Your task to perform on an android device: Open Youtube and go to the subscriptions tab Image 0: 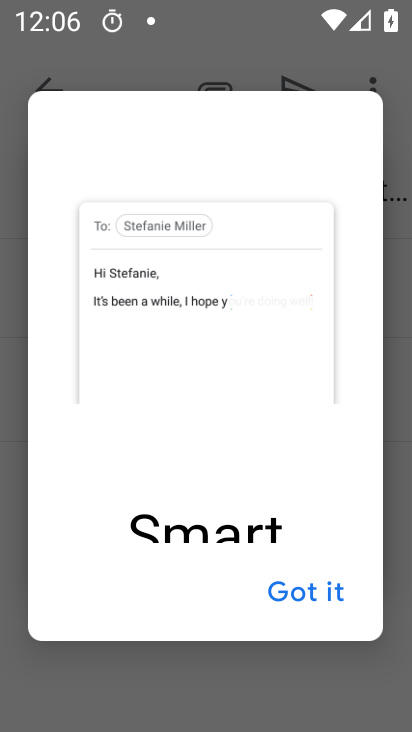
Step 0: drag from (358, 557) to (354, 263)
Your task to perform on an android device: Open Youtube and go to the subscriptions tab Image 1: 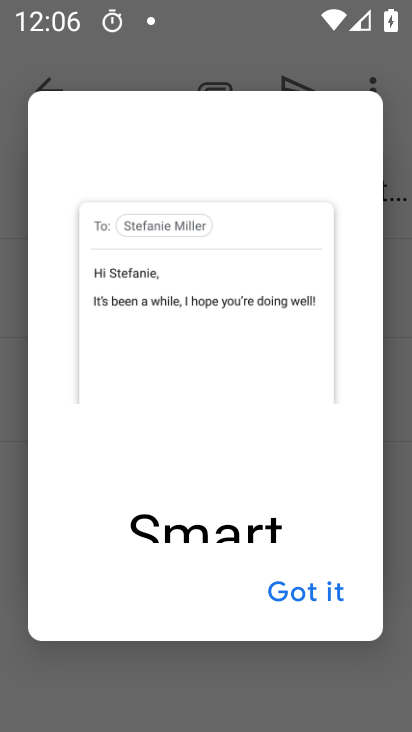
Step 1: press home button
Your task to perform on an android device: Open Youtube and go to the subscriptions tab Image 2: 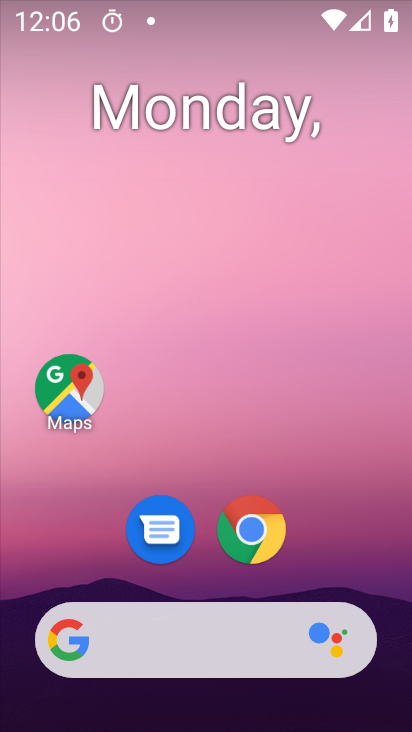
Step 2: drag from (387, 494) to (387, 117)
Your task to perform on an android device: Open Youtube and go to the subscriptions tab Image 3: 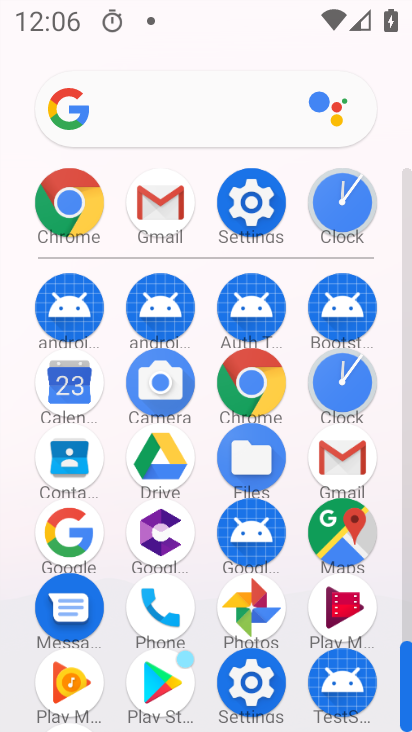
Step 3: drag from (383, 634) to (386, 434)
Your task to perform on an android device: Open Youtube and go to the subscriptions tab Image 4: 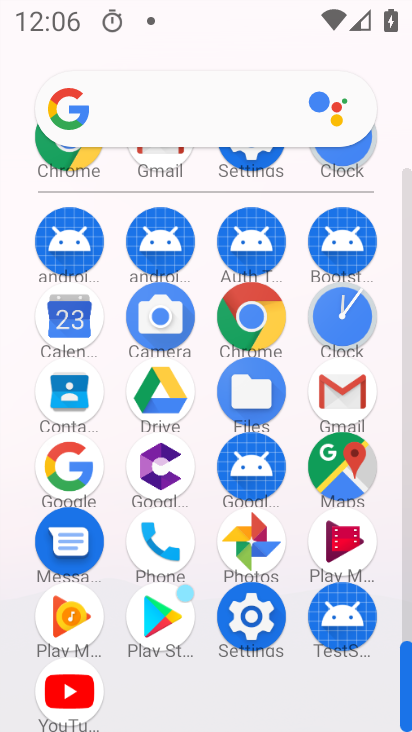
Step 4: click (69, 686)
Your task to perform on an android device: Open Youtube and go to the subscriptions tab Image 5: 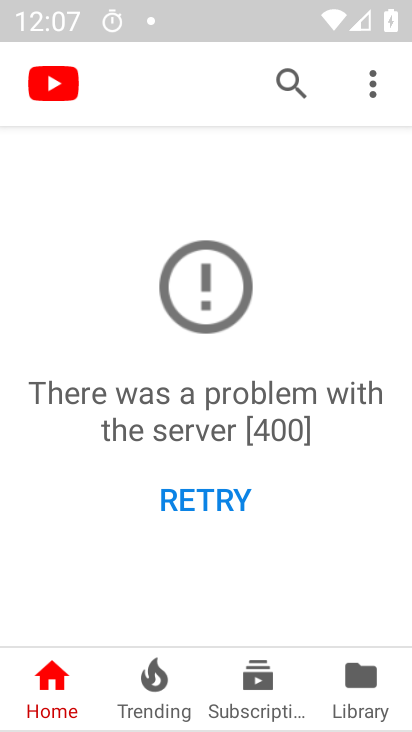
Step 5: click (259, 687)
Your task to perform on an android device: Open Youtube and go to the subscriptions tab Image 6: 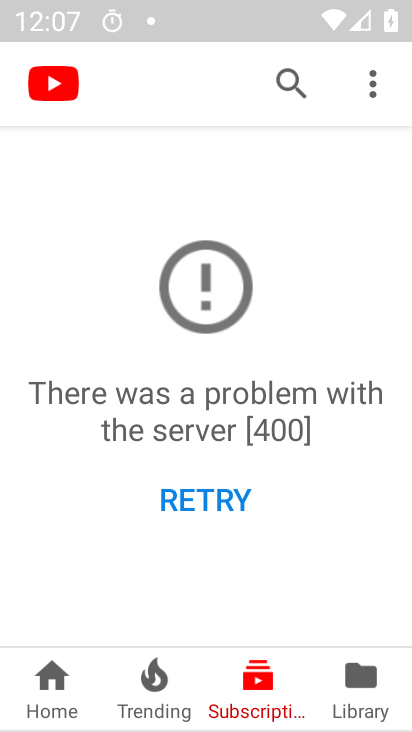
Step 6: task complete